Your task to perform on an android device: set the stopwatch Image 0: 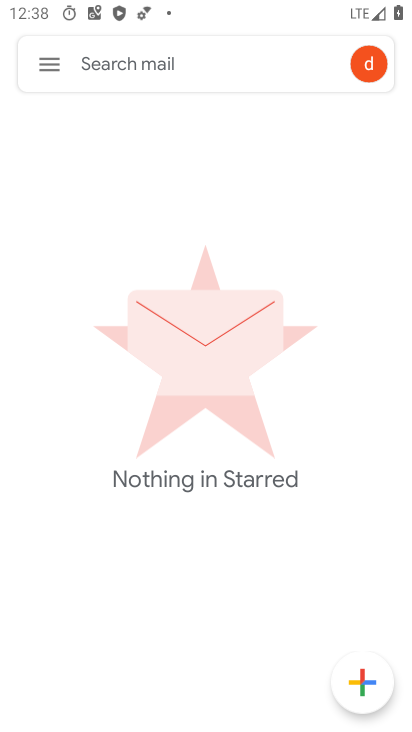
Step 0: press home button
Your task to perform on an android device: set the stopwatch Image 1: 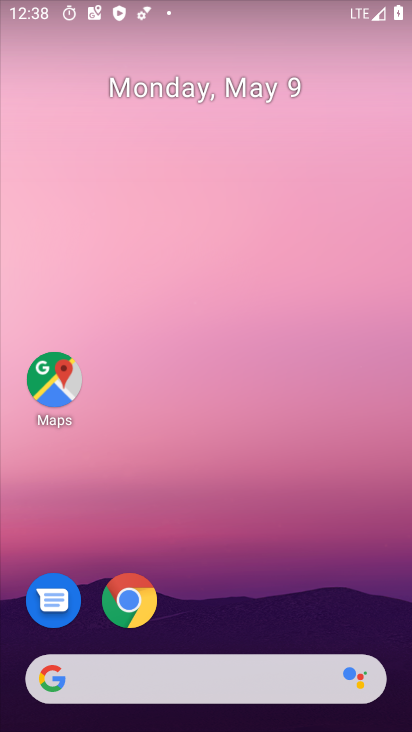
Step 1: drag from (189, 556) to (222, 192)
Your task to perform on an android device: set the stopwatch Image 2: 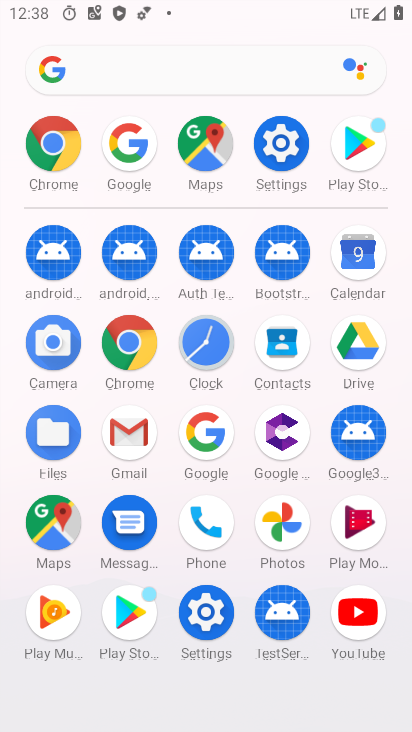
Step 2: click (228, 344)
Your task to perform on an android device: set the stopwatch Image 3: 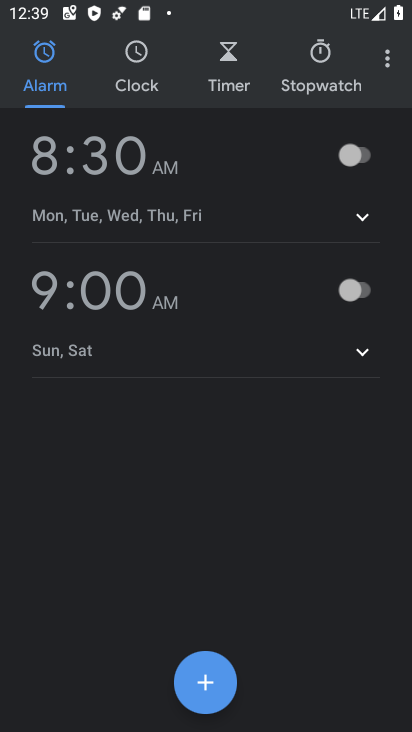
Step 3: click (337, 61)
Your task to perform on an android device: set the stopwatch Image 4: 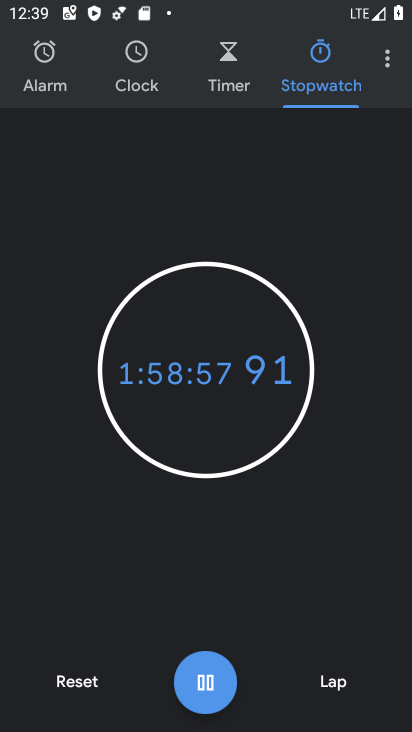
Step 4: click (208, 697)
Your task to perform on an android device: set the stopwatch Image 5: 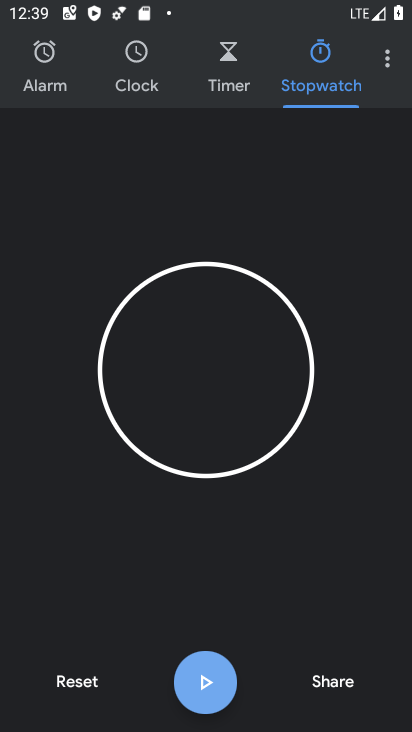
Step 5: click (90, 681)
Your task to perform on an android device: set the stopwatch Image 6: 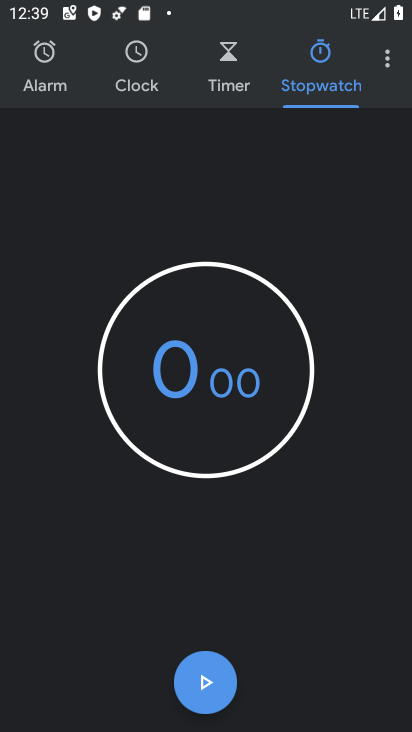
Step 6: click (187, 698)
Your task to perform on an android device: set the stopwatch Image 7: 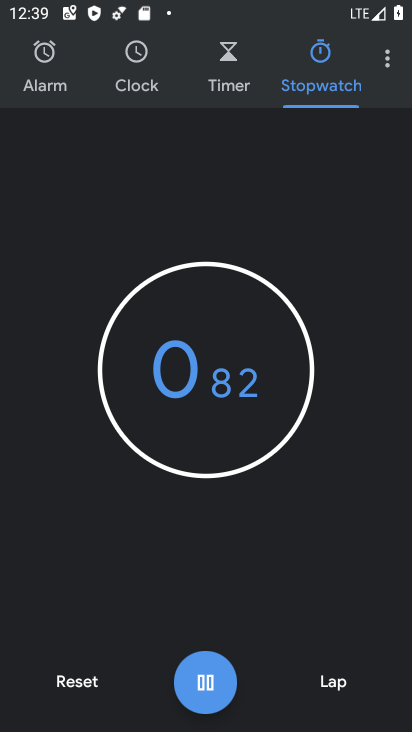
Step 7: task complete